Your task to perform on an android device: install app "Gboard" Image 0: 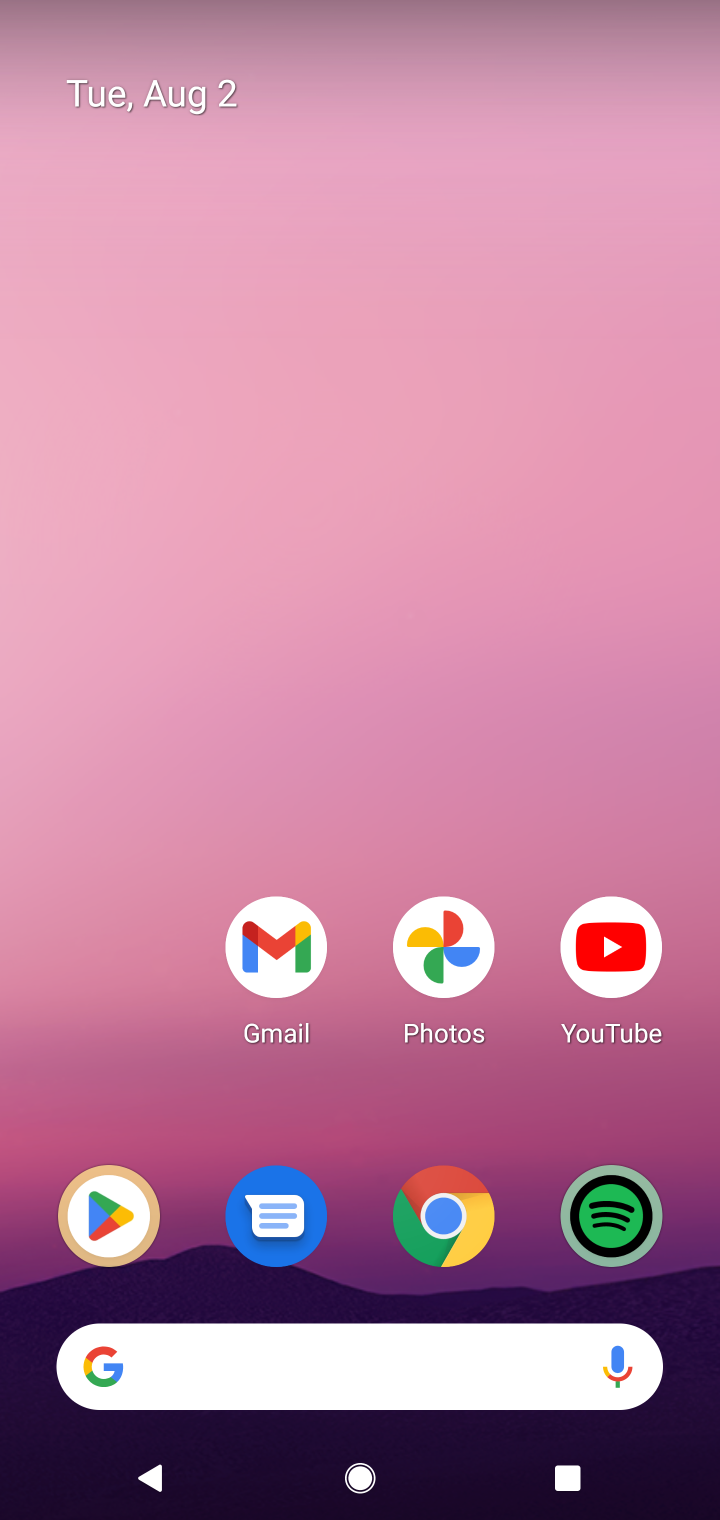
Step 0: click (124, 1227)
Your task to perform on an android device: install app "Gboard" Image 1: 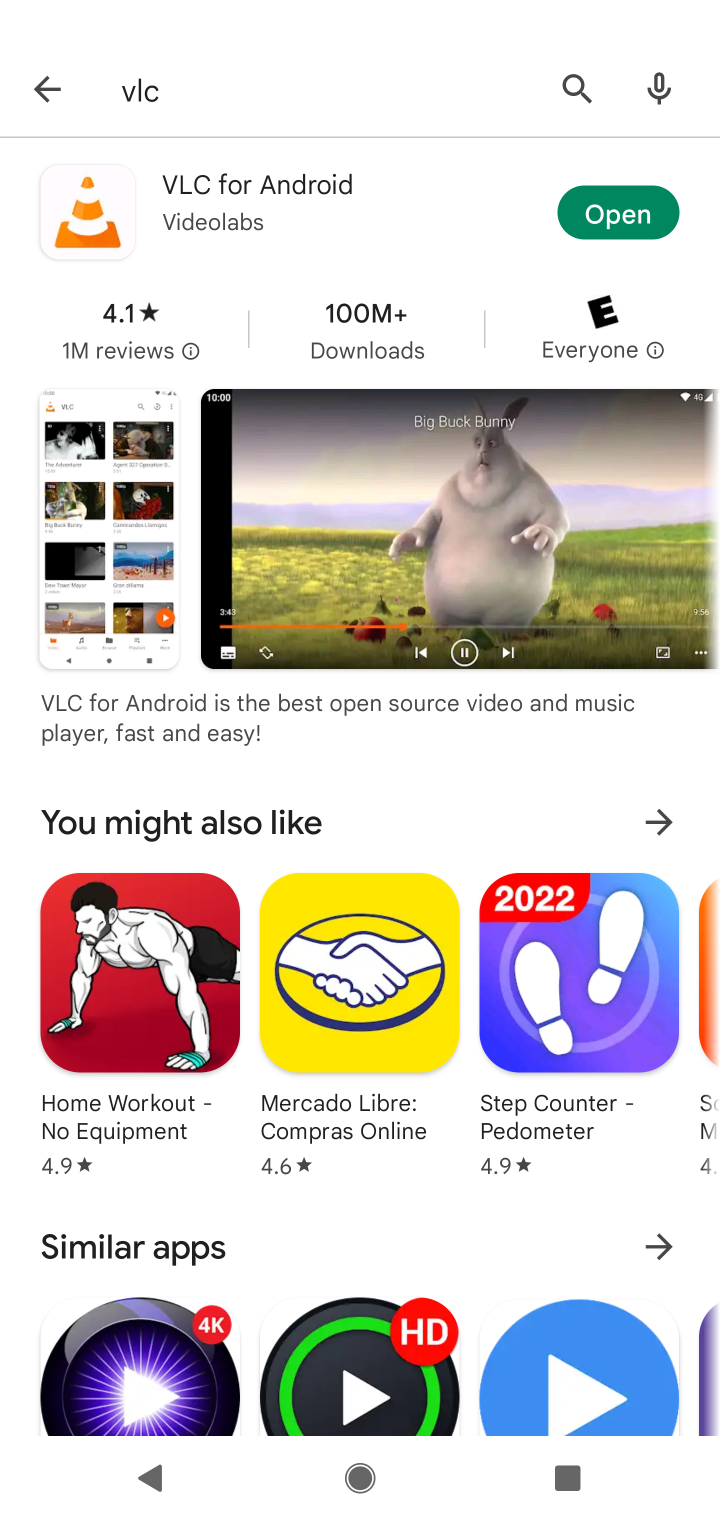
Step 1: click (539, 103)
Your task to perform on an android device: install app "Gboard" Image 2: 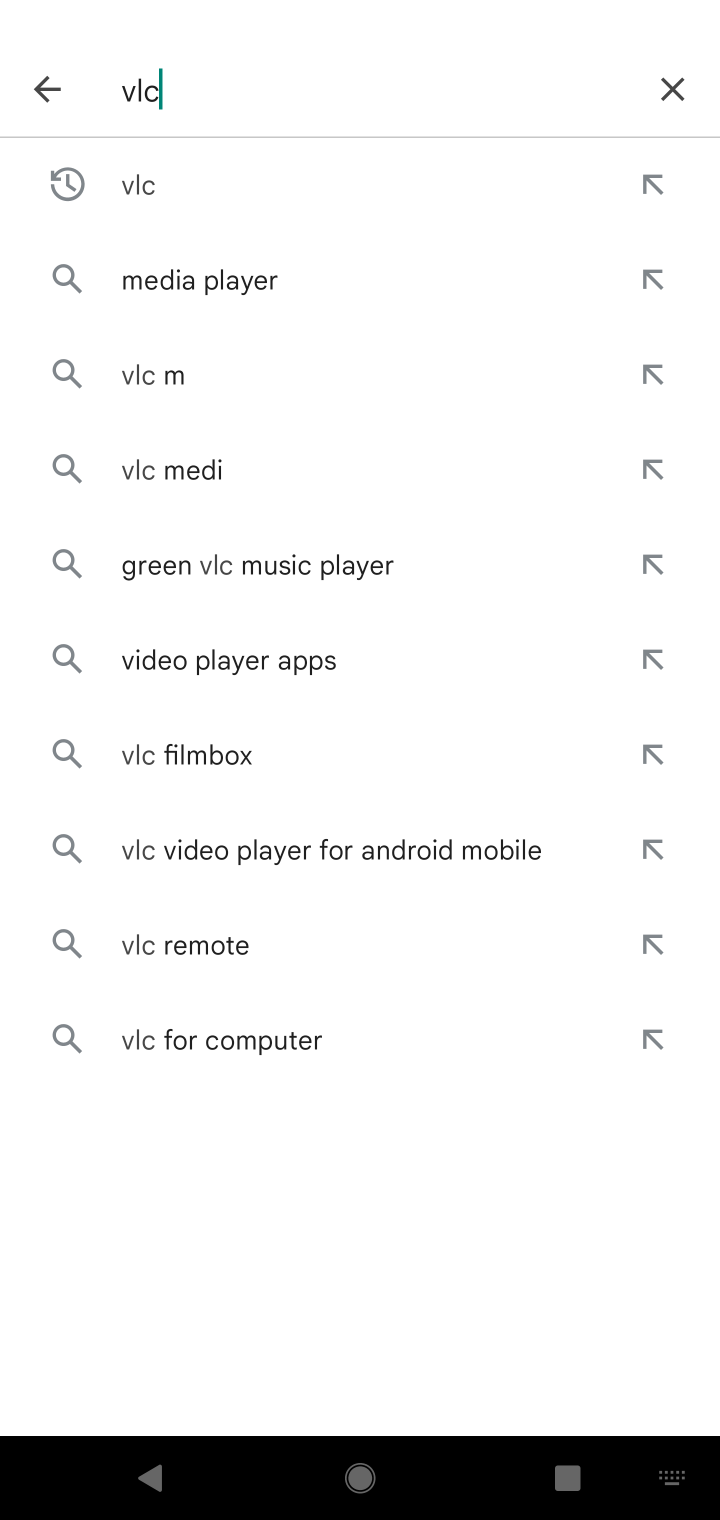
Step 2: click (668, 78)
Your task to perform on an android device: install app "Gboard" Image 3: 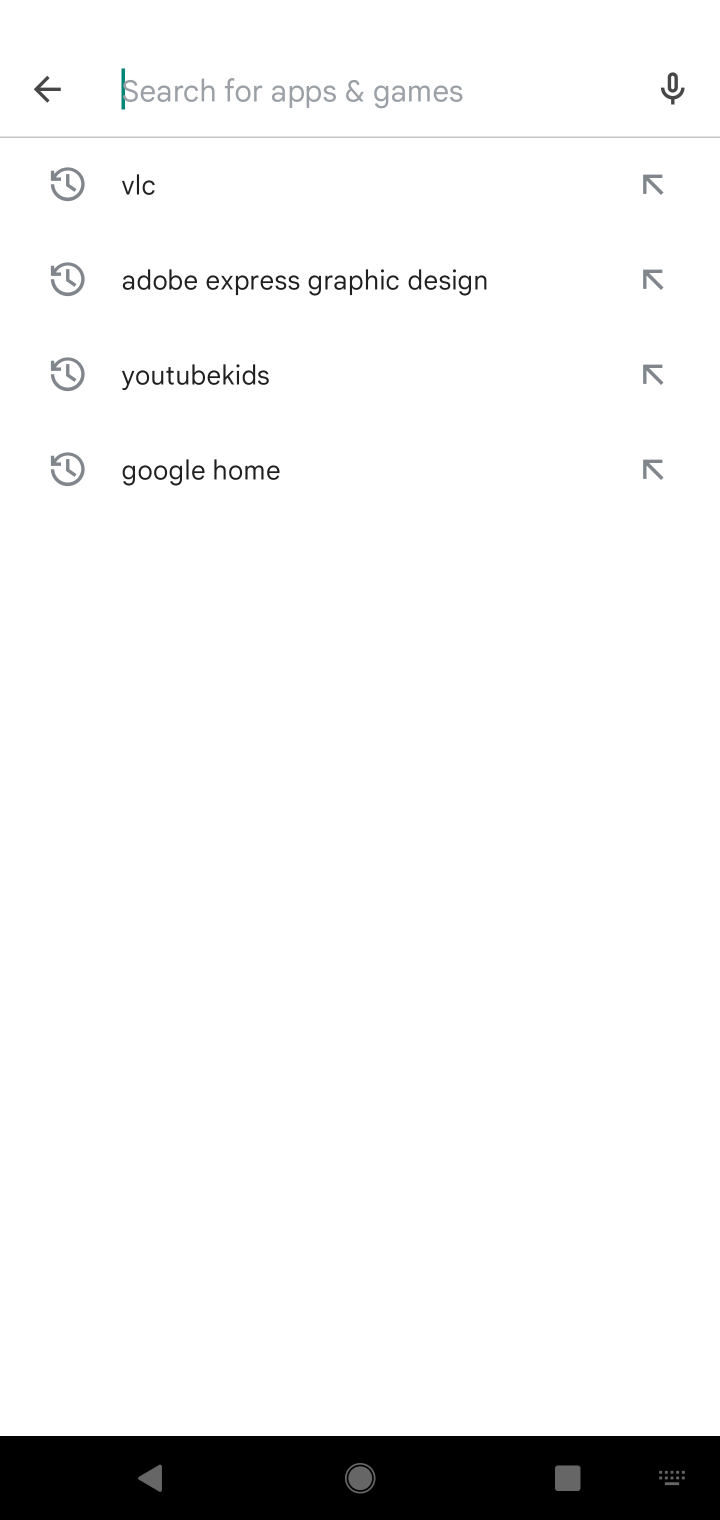
Step 3: type "gboard"
Your task to perform on an android device: install app "Gboard" Image 4: 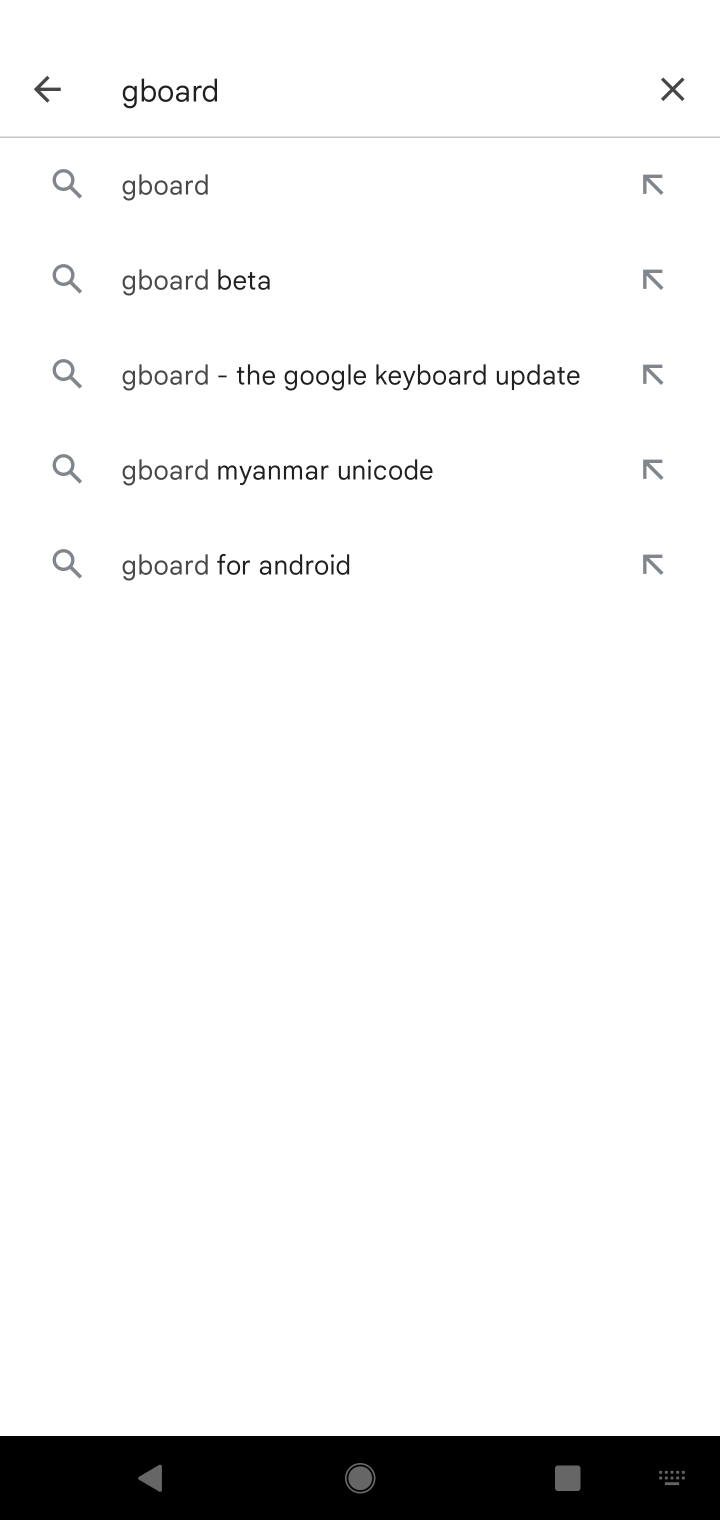
Step 4: click (304, 164)
Your task to perform on an android device: install app "Gboard" Image 5: 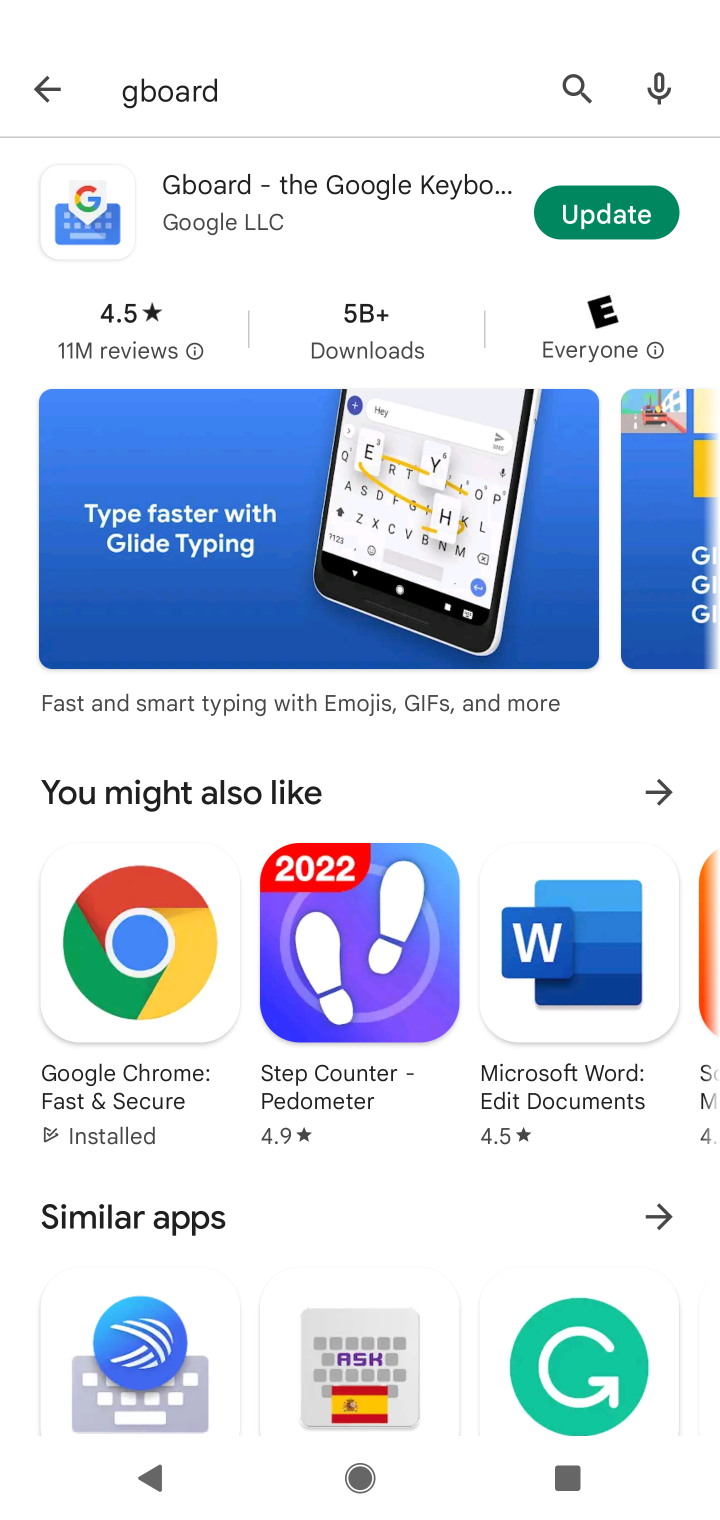
Step 5: click (603, 223)
Your task to perform on an android device: install app "Gboard" Image 6: 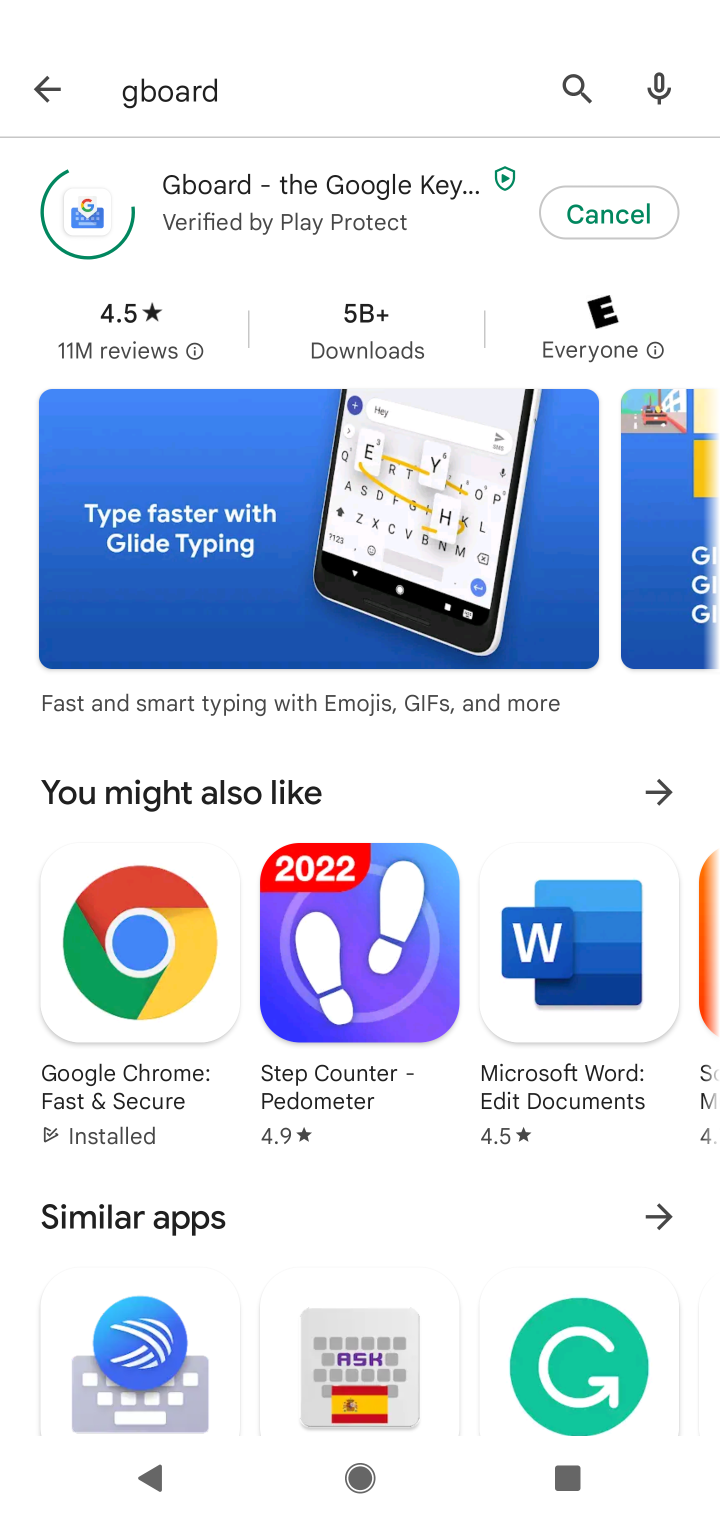
Step 6: task complete